Your task to perform on an android device: check the backup settings in the google photos Image 0: 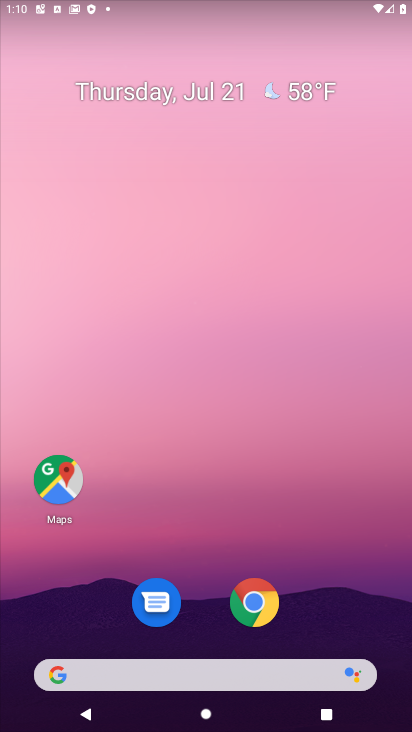
Step 0: drag from (368, 628) to (260, 56)
Your task to perform on an android device: check the backup settings in the google photos Image 1: 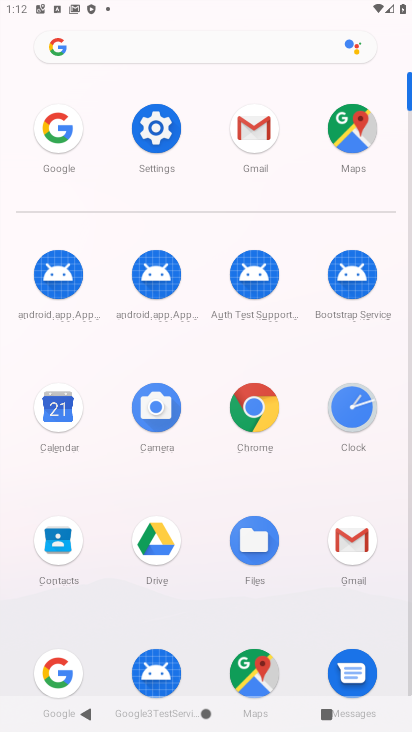
Step 1: drag from (202, 640) to (177, 90)
Your task to perform on an android device: check the backup settings in the google photos Image 2: 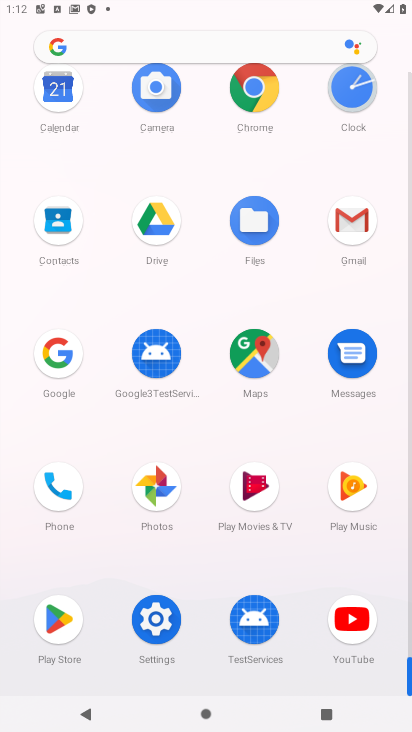
Step 2: click (158, 487)
Your task to perform on an android device: check the backup settings in the google photos Image 3: 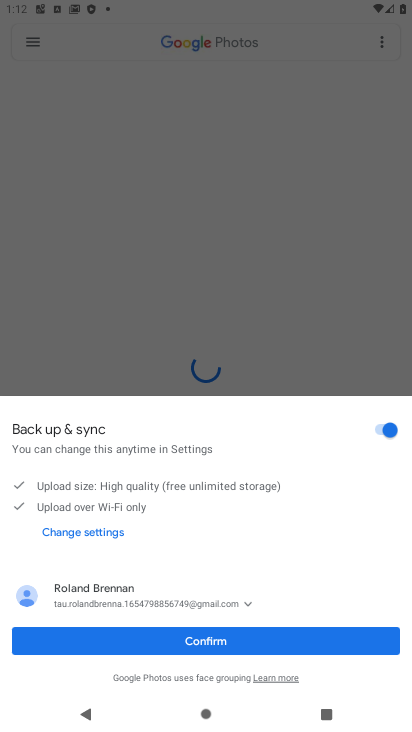
Step 3: click (172, 644)
Your task to perform on an android device: check the backup settings in the google photos Image 4: 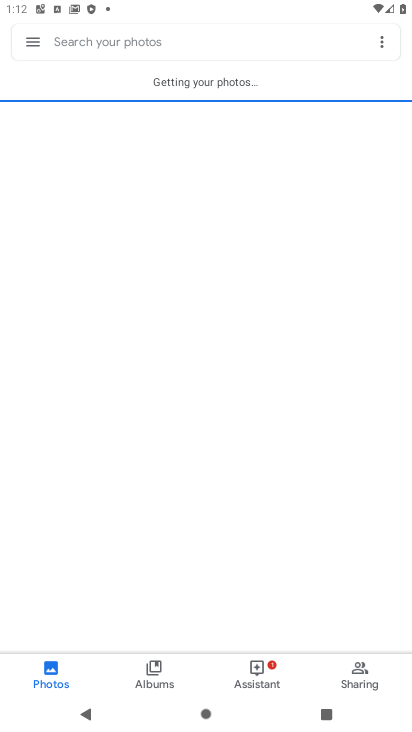
Step 4: click (24, 37)
Your task to perform on an android device: check the backup settings in the google photos Image 5: 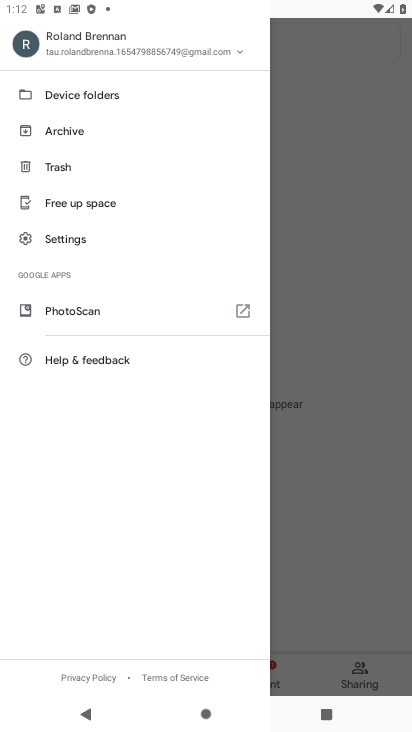
Step 5: click (72, 238)
Your task to perform on an android device: check the backup settings in the google photos Image 6: 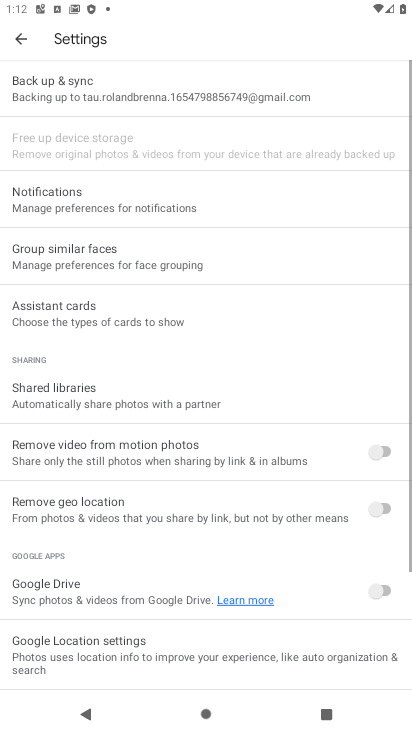
Step 6: click (187, 93)
Your task to perform on an android device: check the backup settings in the google photos Image 7: 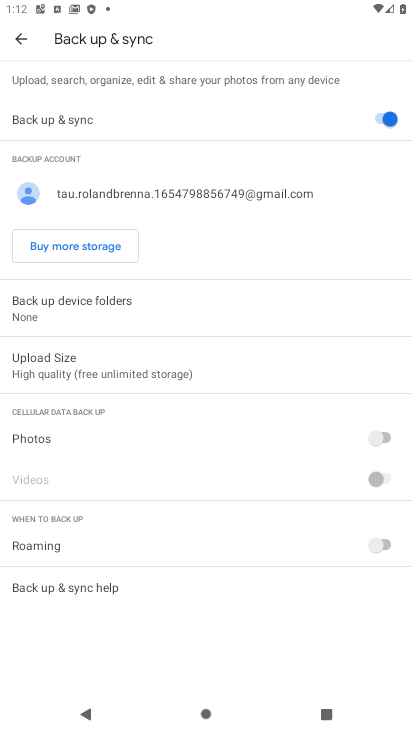
Step 7: task complete